Your task to perform on an android device: Go to privacy settings Image 0: 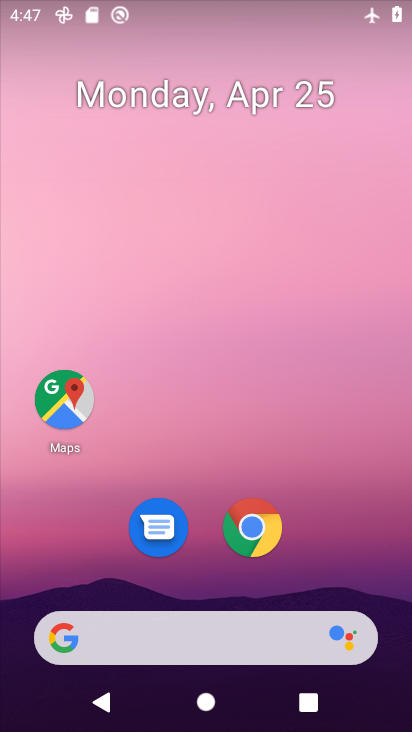
Step 0: drag from (344, 547) to (335, 106)
Your task to perform on an android device: Go to privacy settings Image 1: 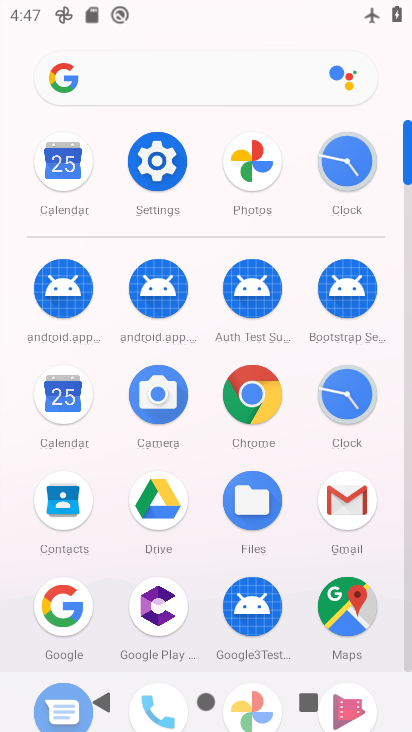
Step 1: click (407, 652)
Your task to perform on an android device: Go to privacy settings Image 2: 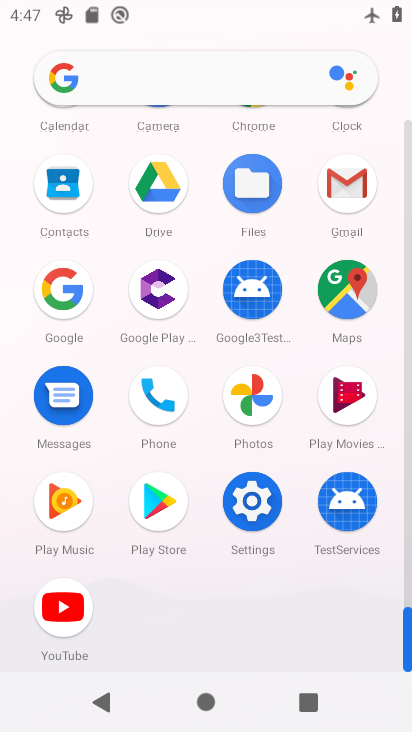
Step 2: click (247, 501)
Your task to perform on an android device: Go to privacy settings Image 3: 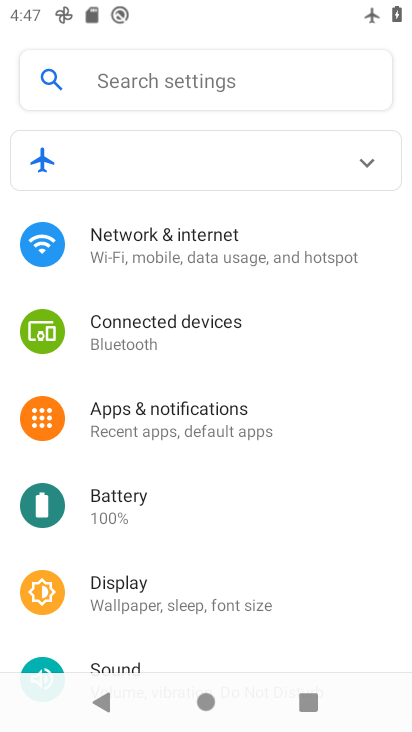
Step 3: drag from (290, 589) to (291, 316)
Your task to perform on an android device: Go to privacy settings Image 4: 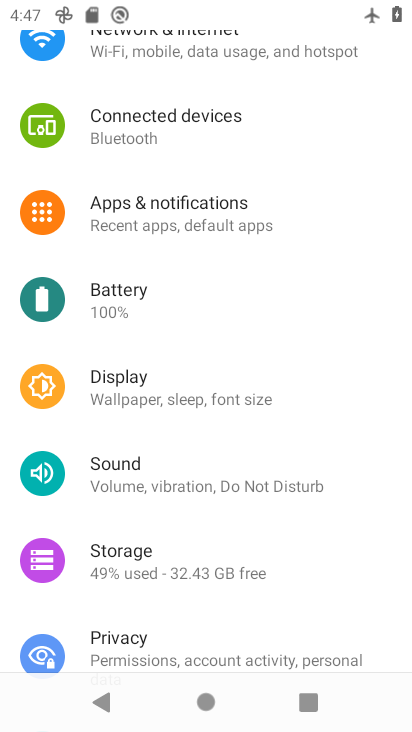
Step 4: click (144, 641)
Your task to perform on an android device: Go to privacy settings Image 5: 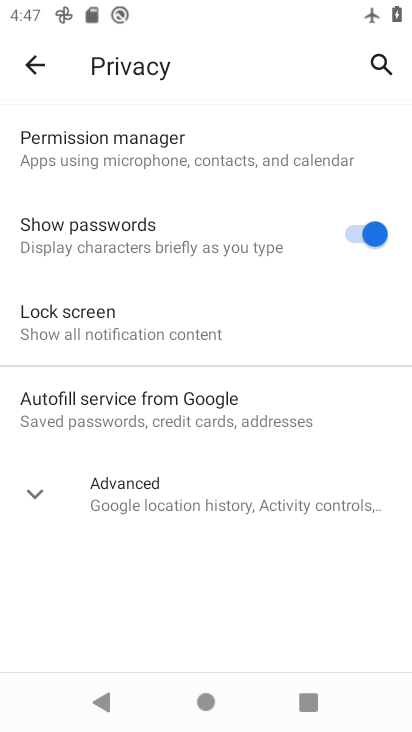
Step 5: click (28, 487)
Your task to perform on an android device: Go to privacy settings Image 6: 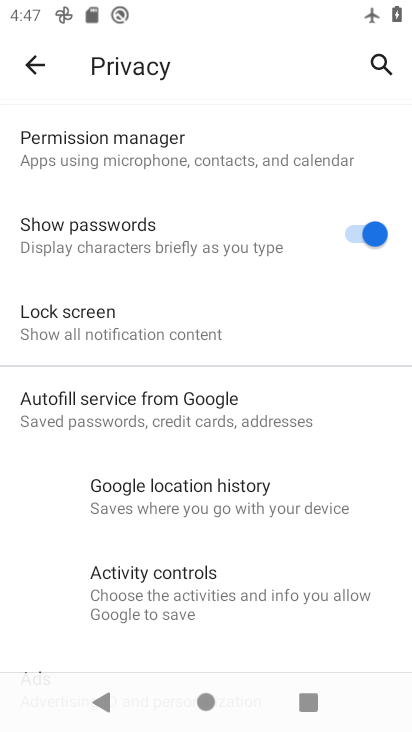
Step 6: task complete